Your task to perform on an android device: Search for the best Nike running shoes on Nike.com Image 0: 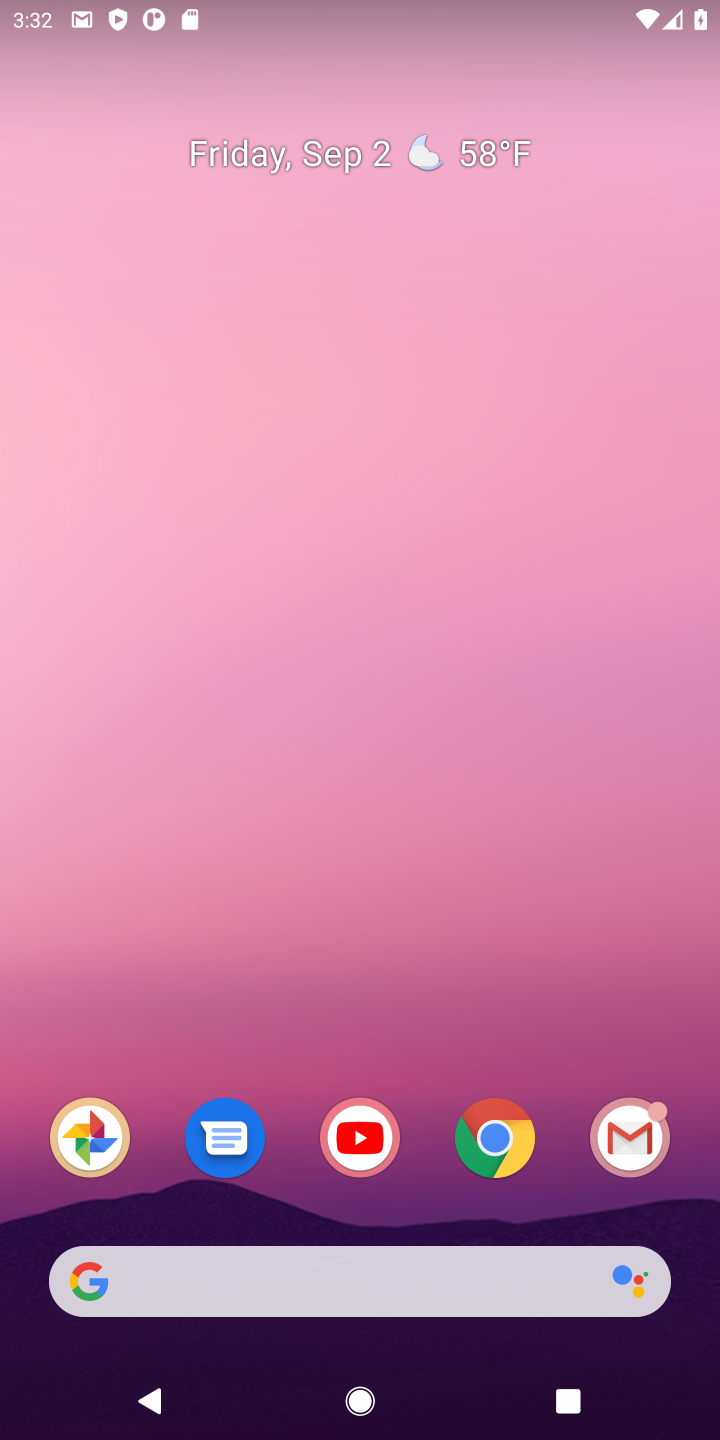
Step 0: click (500, 1146)
Your task to perform on an android device: Search for the best Nike running shoes on Nike.com Image 1: 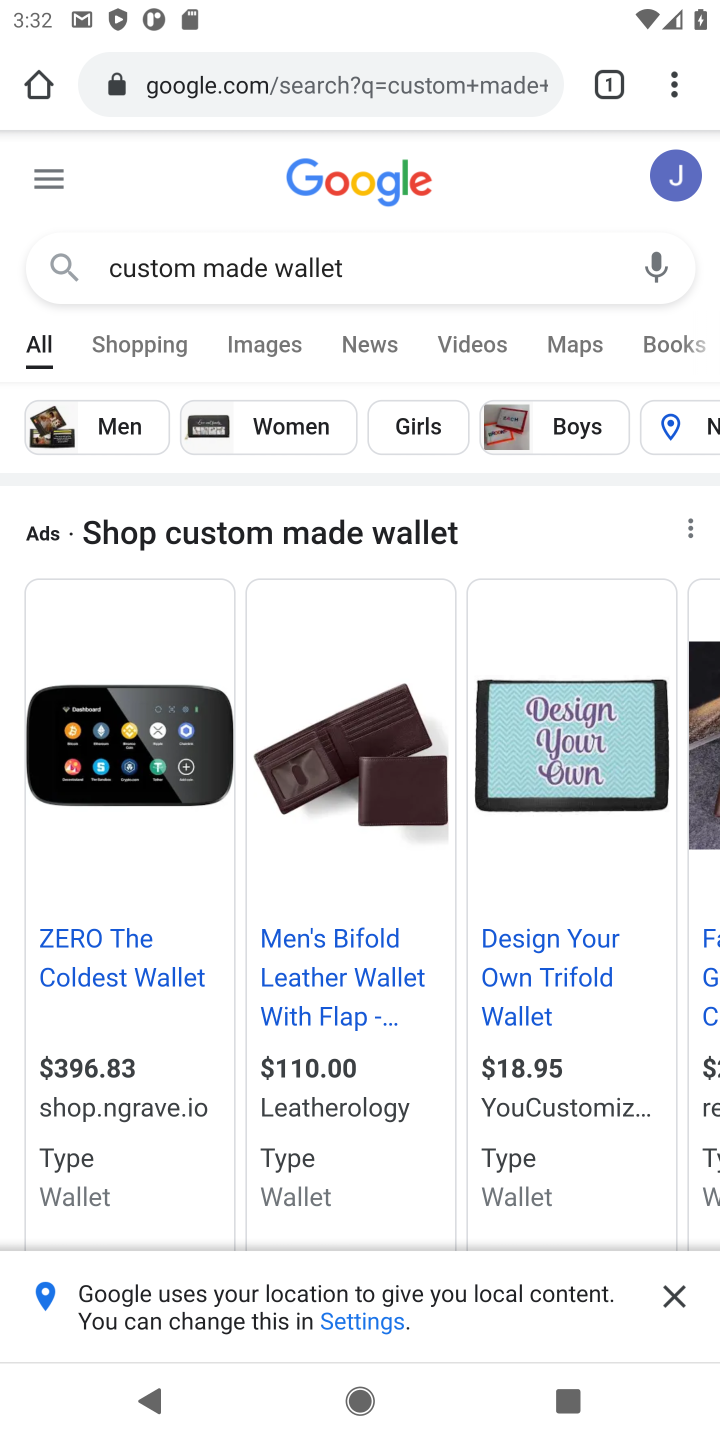
Step 1: click (237, 74)
Your task to perform on an android device: Search for the best Nike running shoes on Nike.com Image 2: 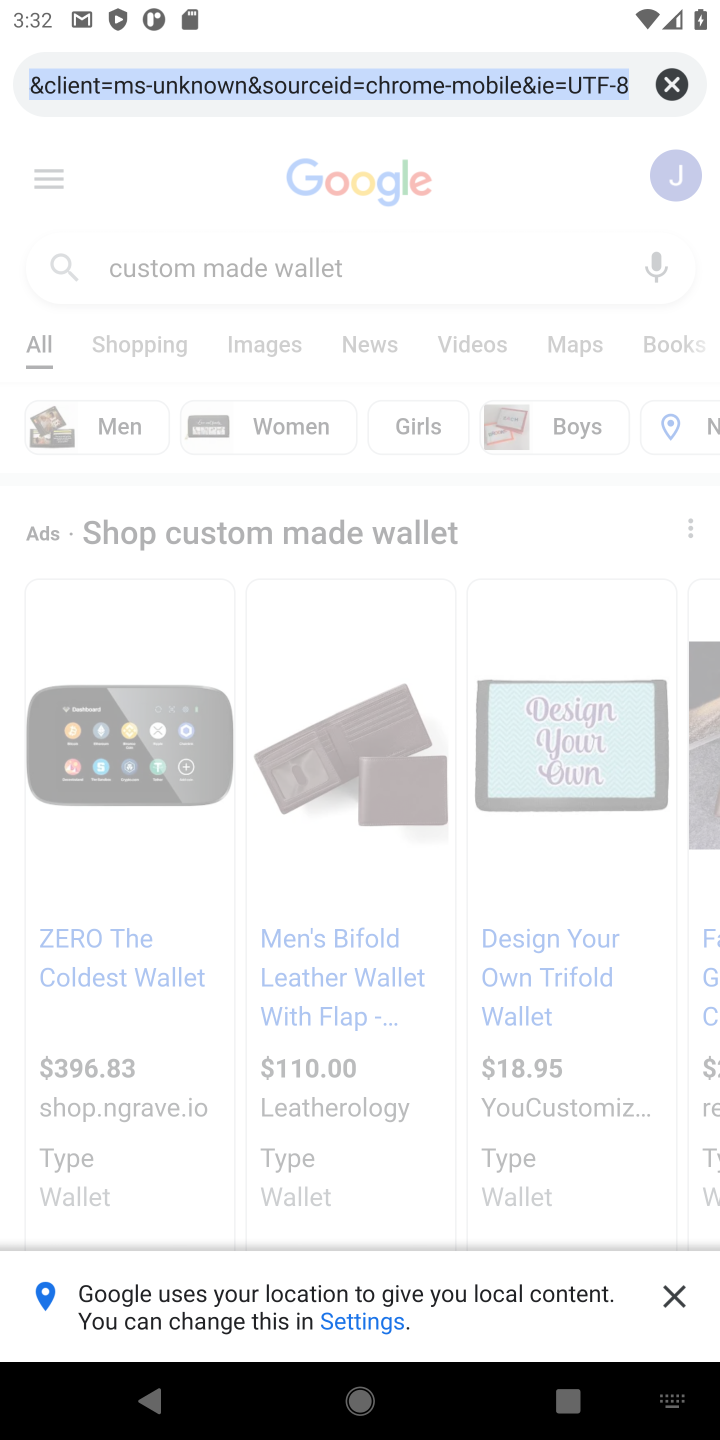
Step 2: click (670, 78)
Your task to perform on an android device: Search for the best Nike running shoes on Nike.com Image 3: 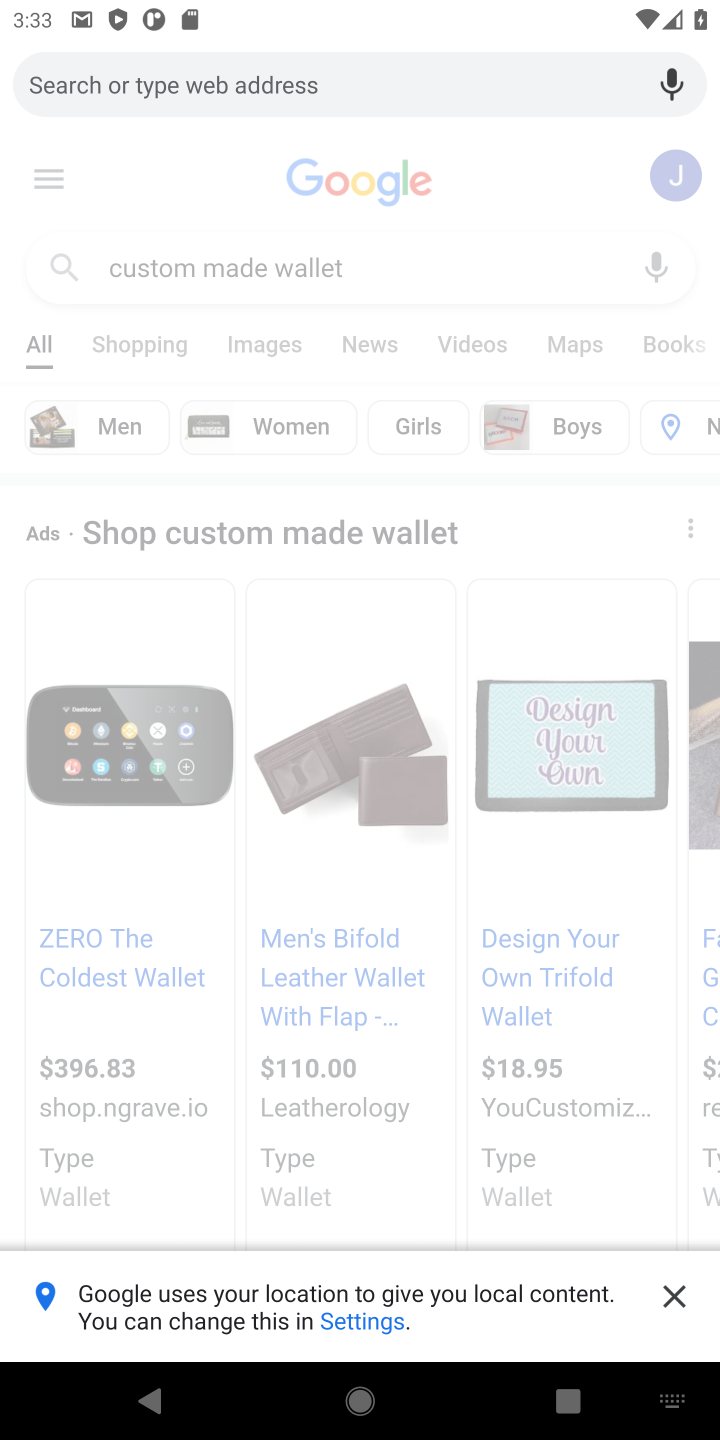
Step 3: type "nike.com"
Your task to perform on an android device: Search for the best Nike running shoes on Nike.com Image 4: 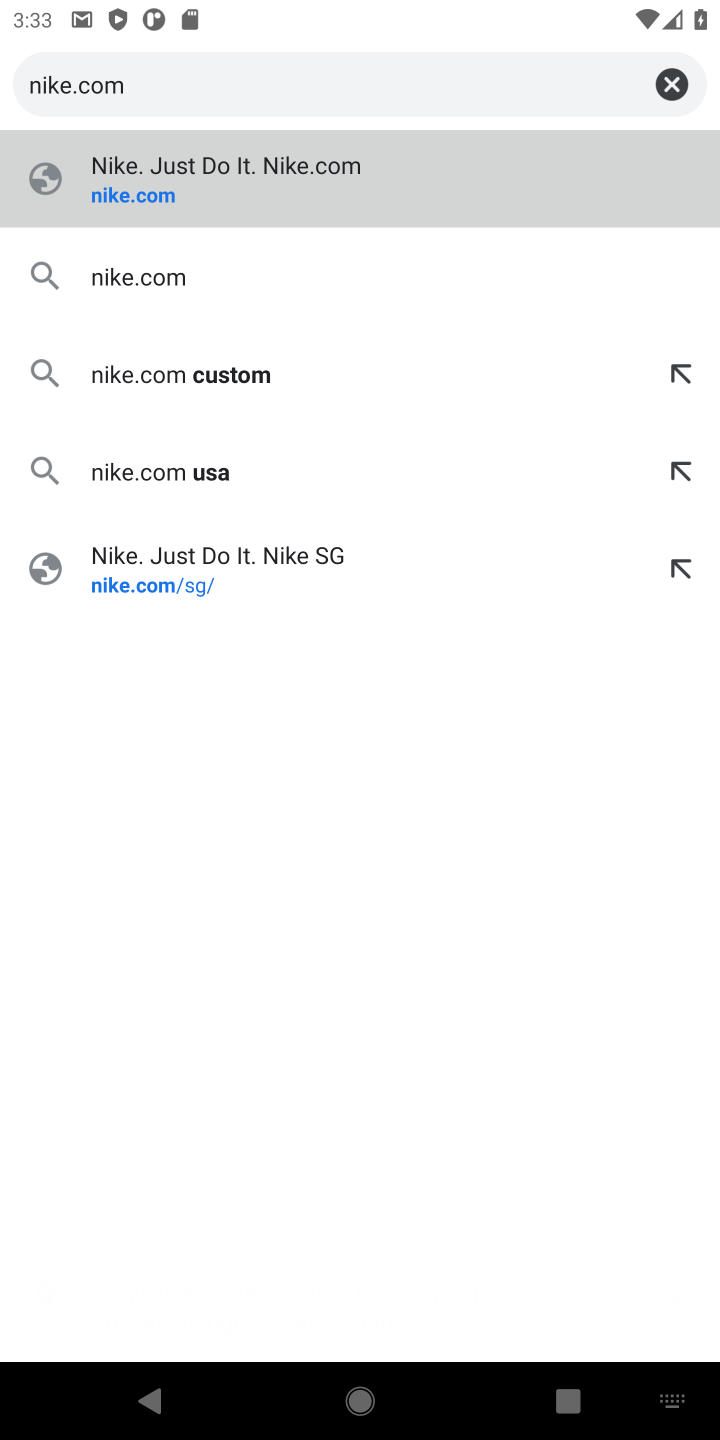
Step 4: click (189, 179)
Your task to perform on an android device: Search for the best Nike running shoes on Nike.com Image 5: 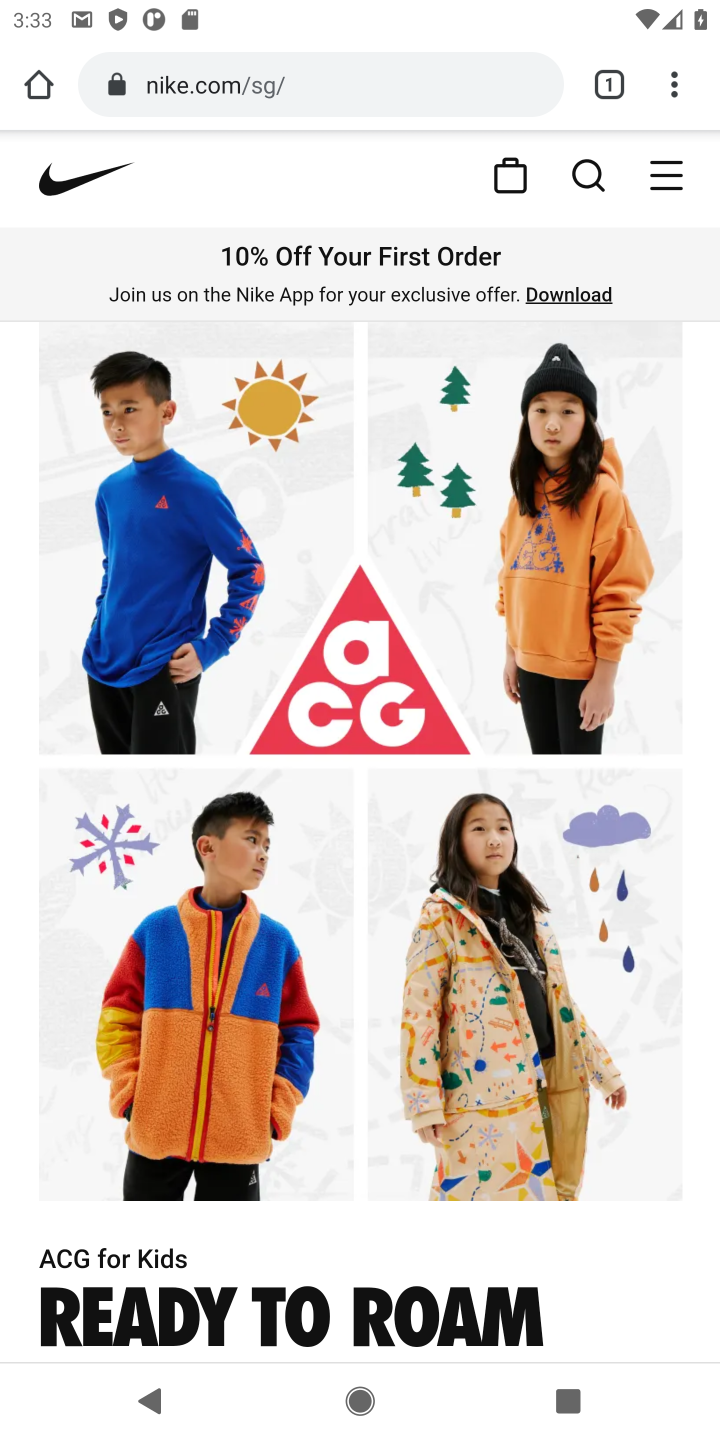
Step 5: click (575, 172)
Your task to perform on an android device: Search for the best Nike running shoes on Nike.com Image 6: 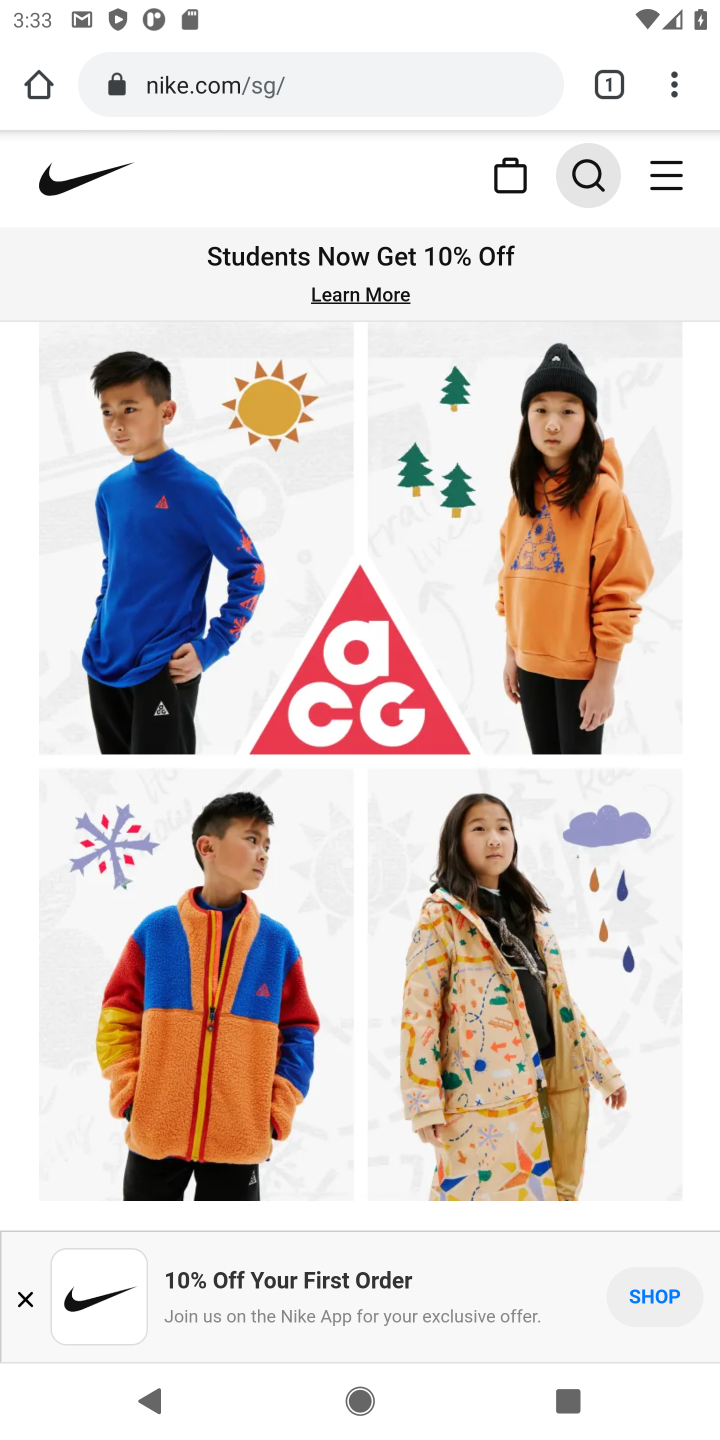
Step 6: click (586, 185)
Your task to perform on an android device: Search for the best Nike running shoes on Nike.com Image 7: 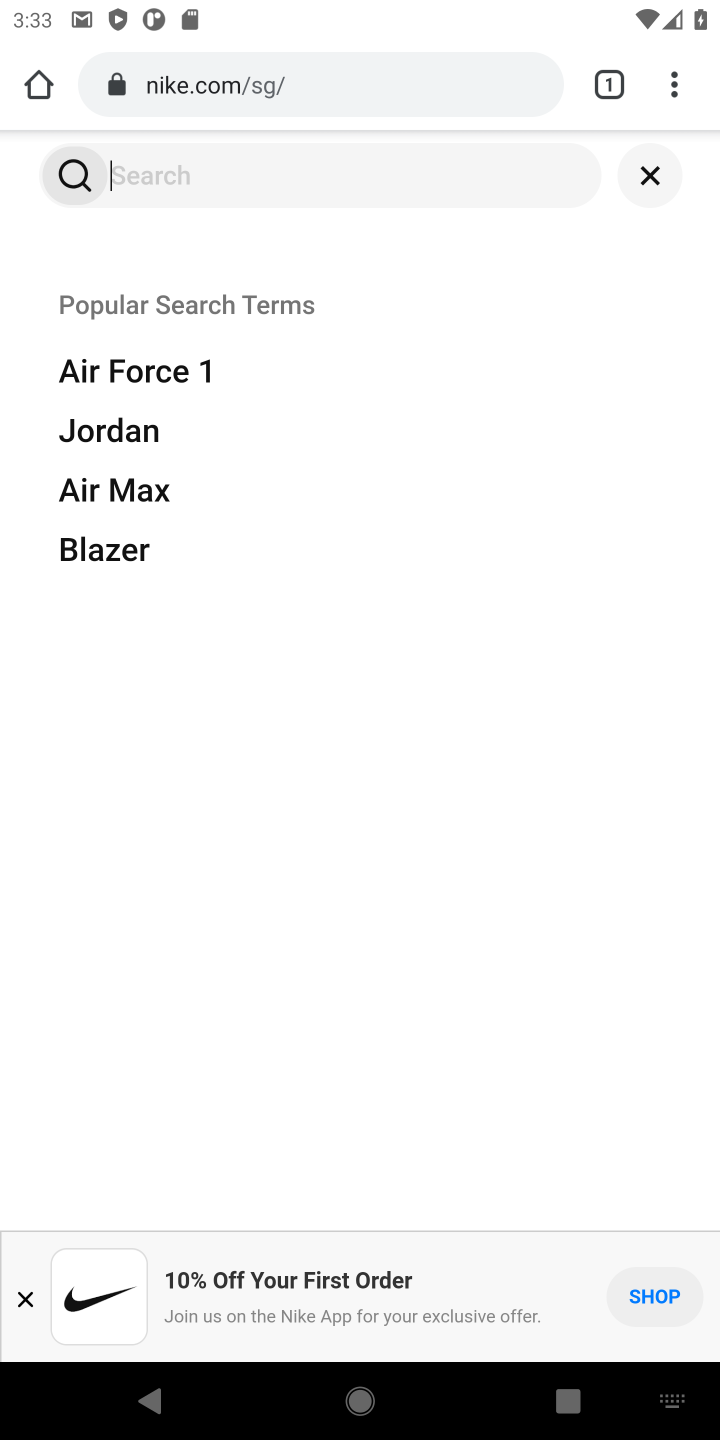
Step 7: type "best nike running shoes"
Your task to perform on an android device: Search for the best Nike running shoes on Nike.com Image 8: 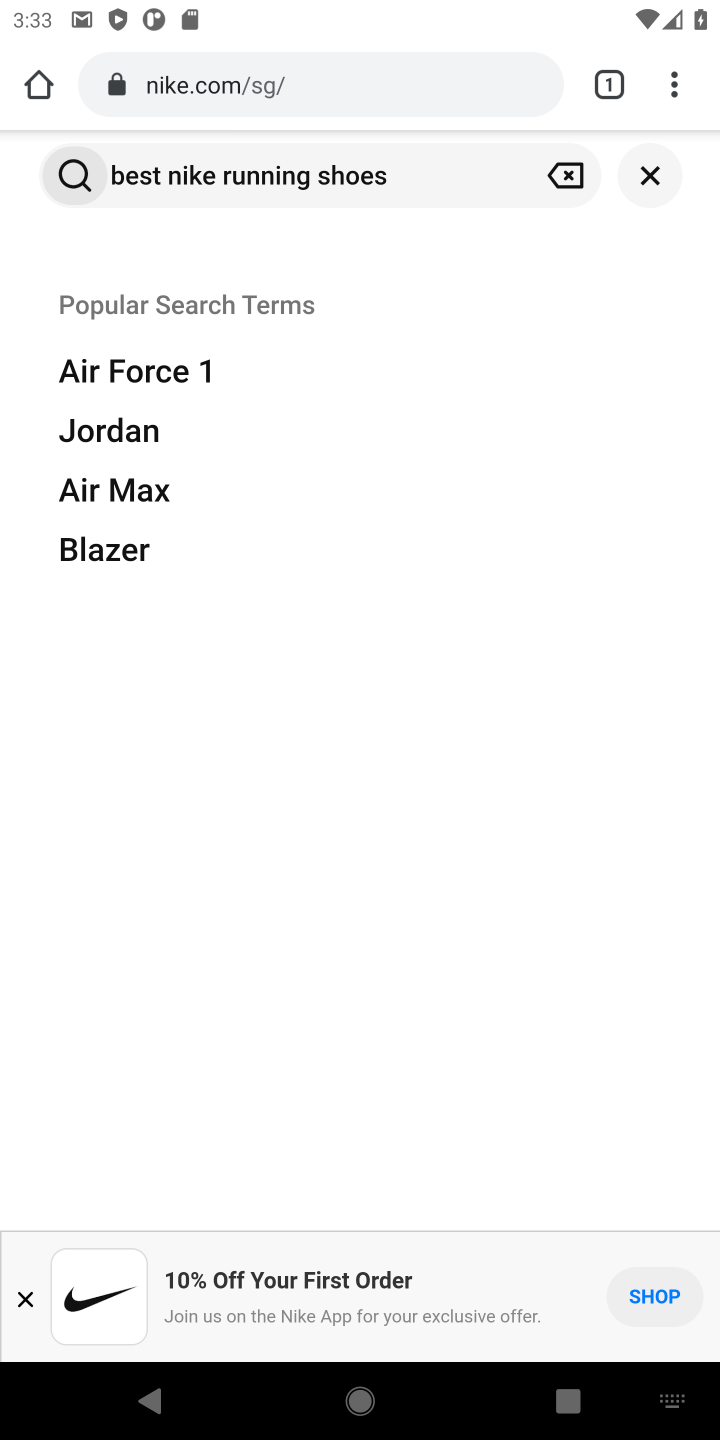
Step 8: press enter
Your task to perform on an android device: Search for the best Nike running shoes on Nike.com Image 9: 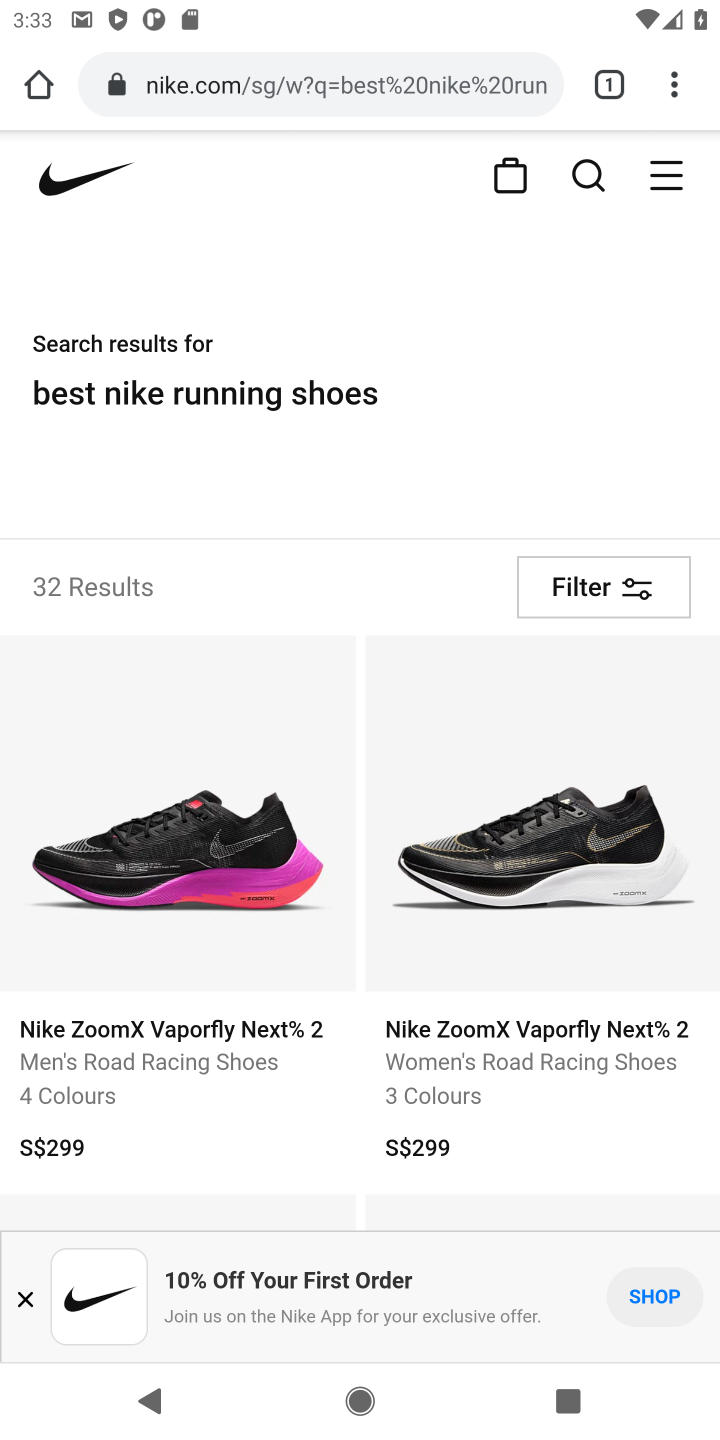
Step 9: task complete